Your task to perform on an android device: turn on translation in the chrome app Image 0: 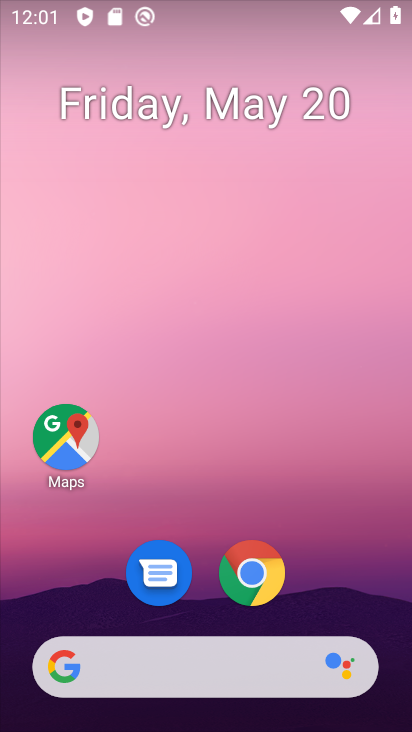
Step 0: click (255, 579)
Your task to perform on an android device: turn on translation in the chrome app Image 1: 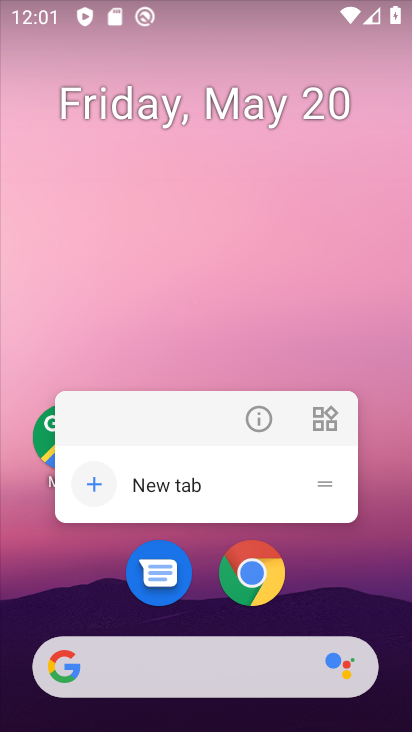
Step 1: click (248, 569)
Your task to perform on an android device: turn on translation in the chrome app Image 2: 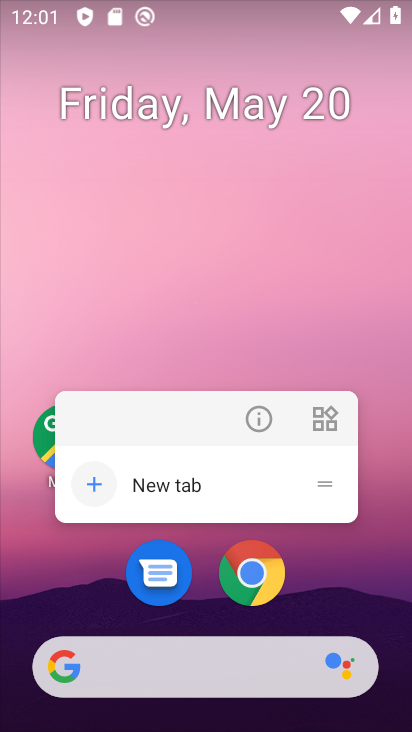
Step 2: click (228, 558)
Your task to perform on an android device: turn on translation in the chrome app Image 3: 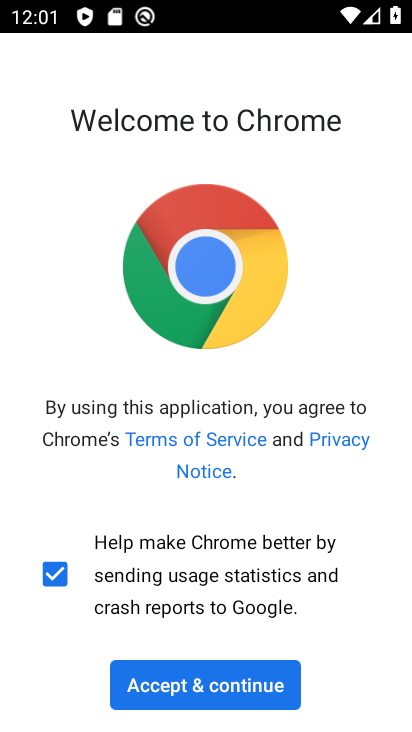
Step 3: click (203, 677)
Your task to perform on an android device: turn on translation in the chrome app Image 4: 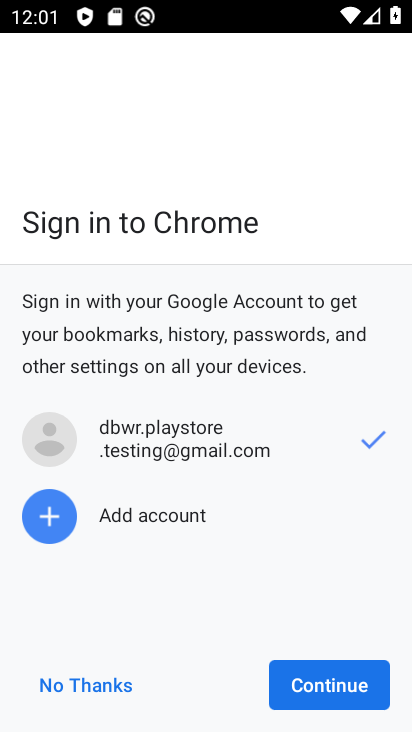
Step 4: click (330, 688)
Your task to perform on an android device: turn on translation in the chrome app Image 5: 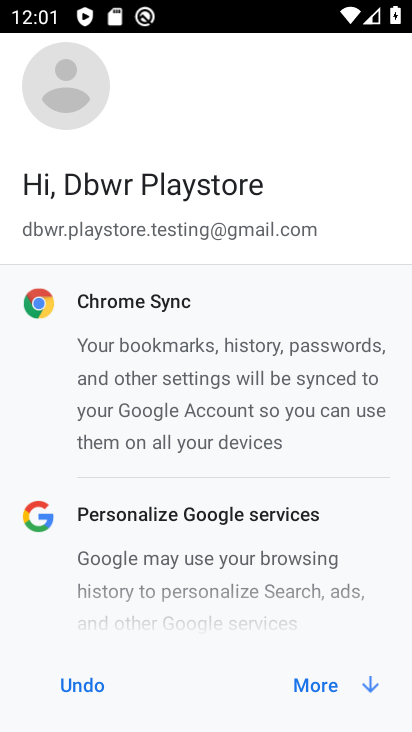
Step 5: click (321, 685)
Your task to perform on an android device: turn on translation in the chrome app Image 6: 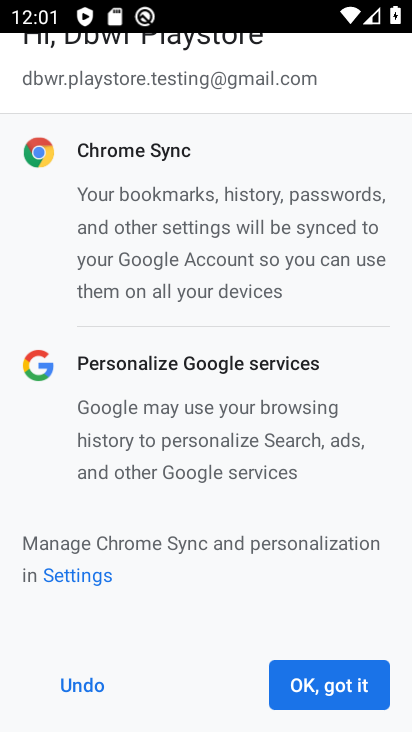
Step 6: click (321, 684)
Your task to perform on an android device: turn on translation in the chrome app Image 7: 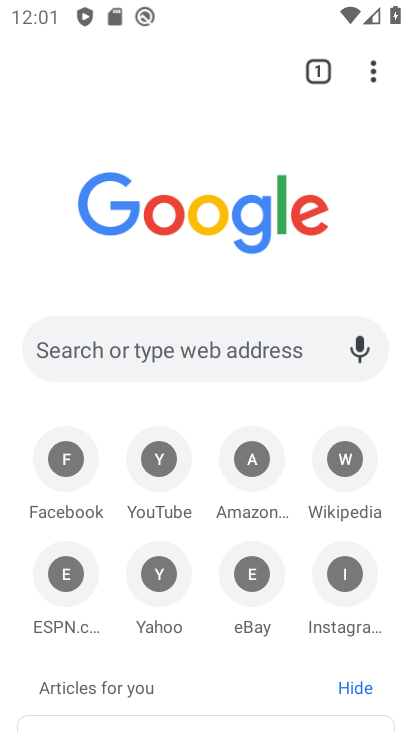
Step 7: click (369, 80)
Your task to perform on an android device: turn on translation in the chrome app Image 8: 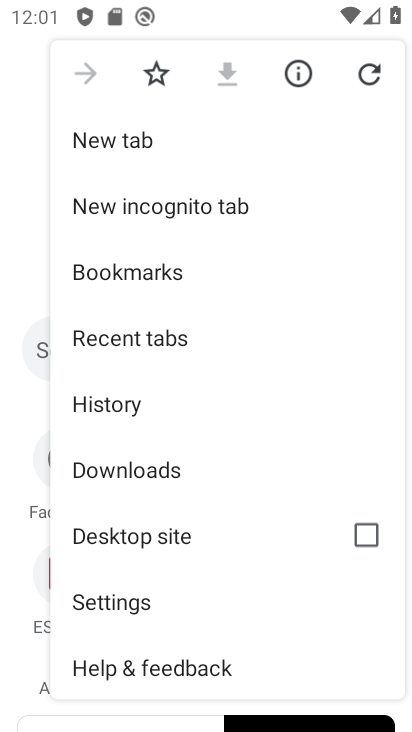
Step 8: click (172, 602)
Your task to perform on an android device: turn on translation in the chrome app Image 9: 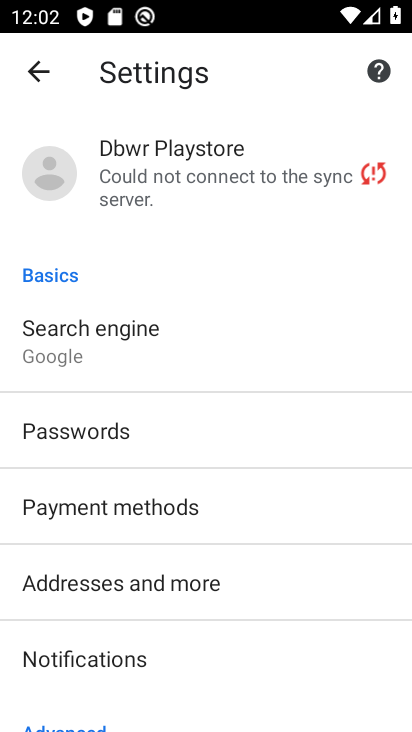
Step 9: drag from (176, 656) to (203, 258)
Your task to perform on an android device: turn on translation in the chrome app Image 10: 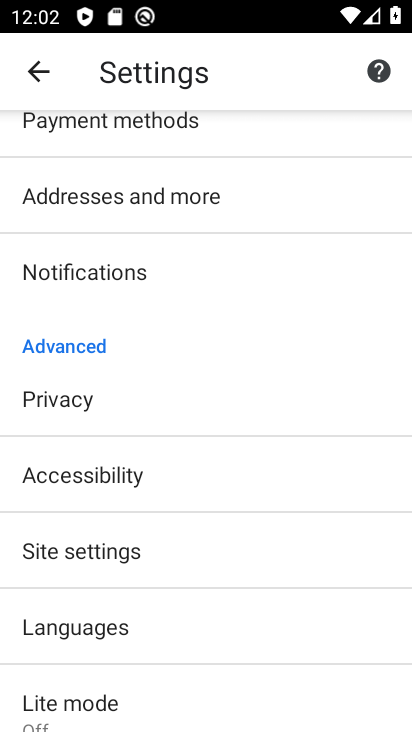
Step 10: click (111, 641)
Your task to perform on an android device: turn on translation in the chrome app Image 11: 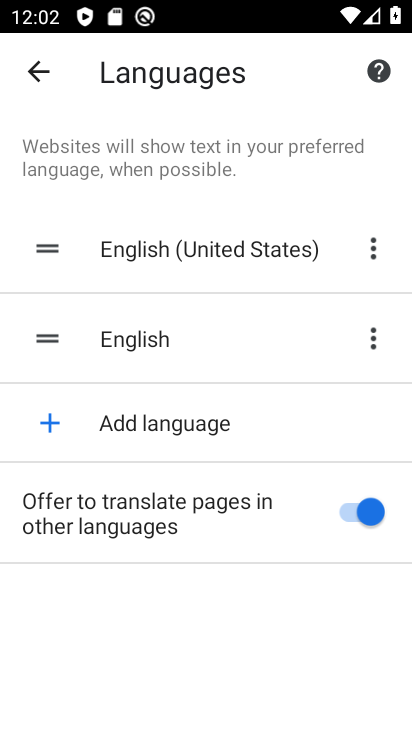
Step 11: task complete